Your task to perform on an android device: turn off wifi Image 0: 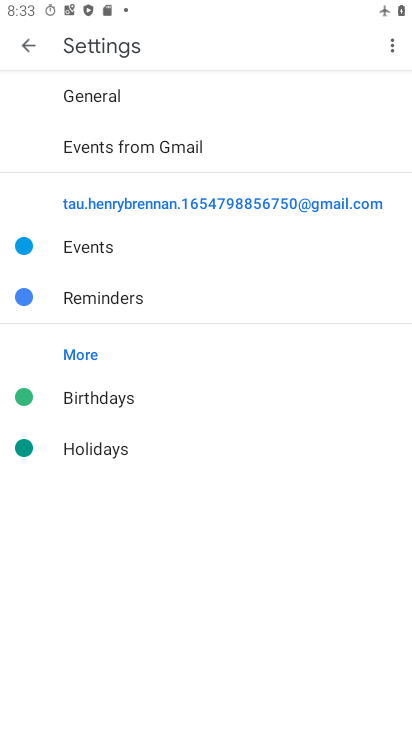
Step 0: press home button
Your task to perform on an android device: turn off wifi Image 1: 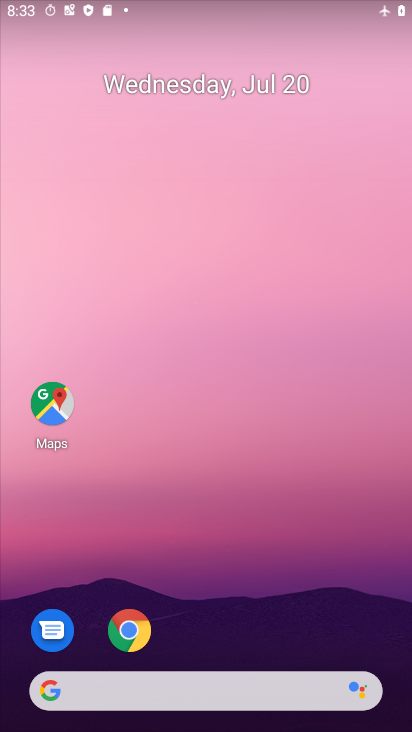
Step 1: drag from (259, 684) to (316, 266)
Your task to perform on an android device: turn off wifi Image 2: 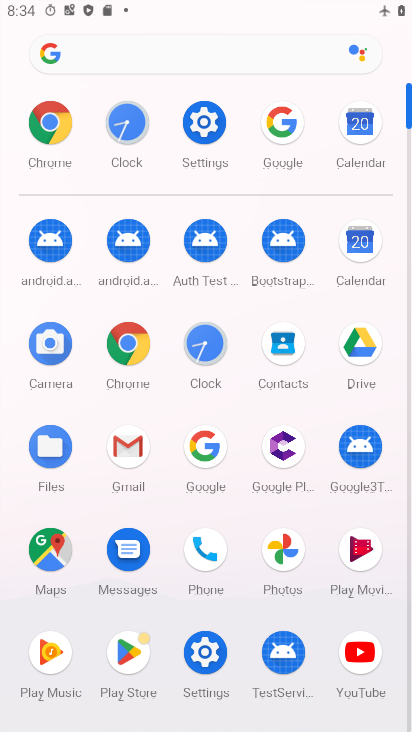
Step 2: click (216, 134)
Your task to perform on an android device: turn off wifi Image 3: 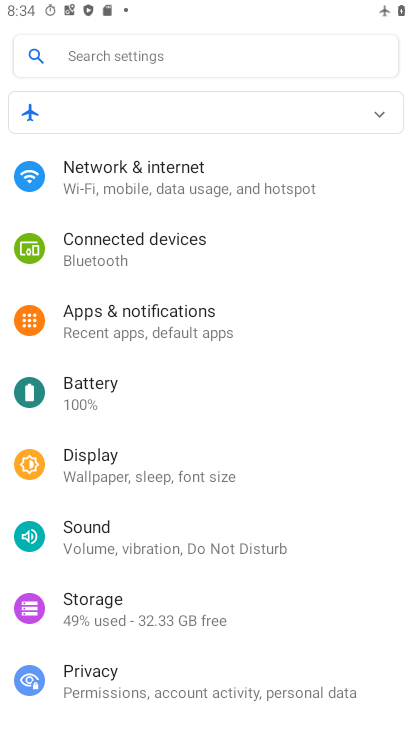
Step 3: click (180, 183)
Your task to perform on an android device: turn off wifi Image 4: 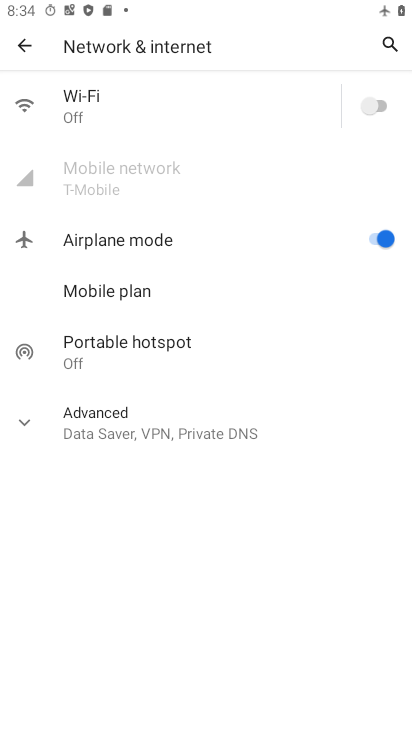
Step 4: task complete